Your task to perform on an android device: make emails show in primary in the gmail app Image 0: 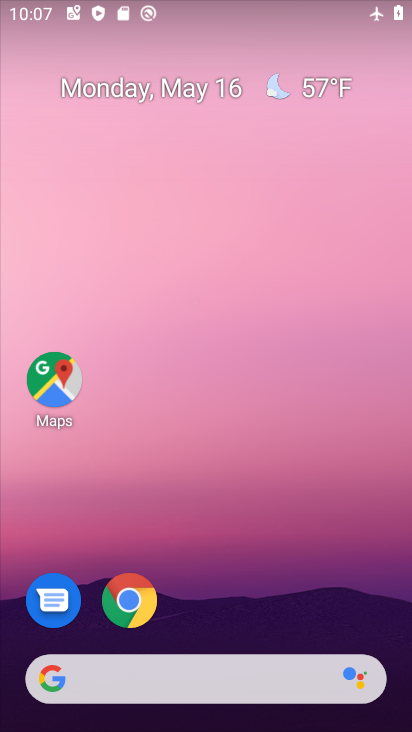
Step 0: drag from (325, 612) to (300, 154)
Your task to perform on an android device: make emails show in primary in the gmail app Image 1: 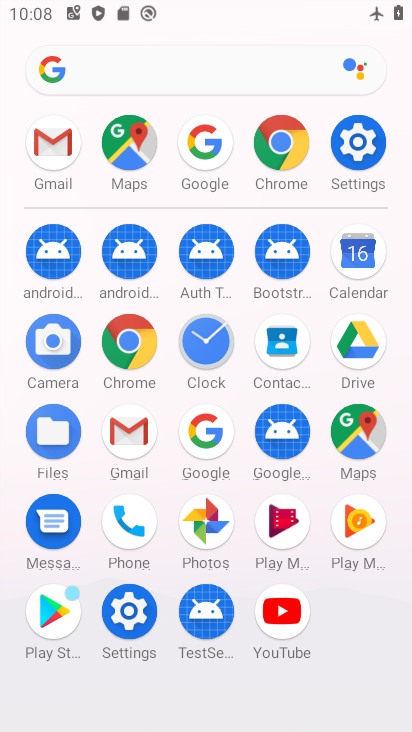
Step 1: click (134, 443)
Your task to perform on an android device: make emails show in primary in the gmail app Image 2: 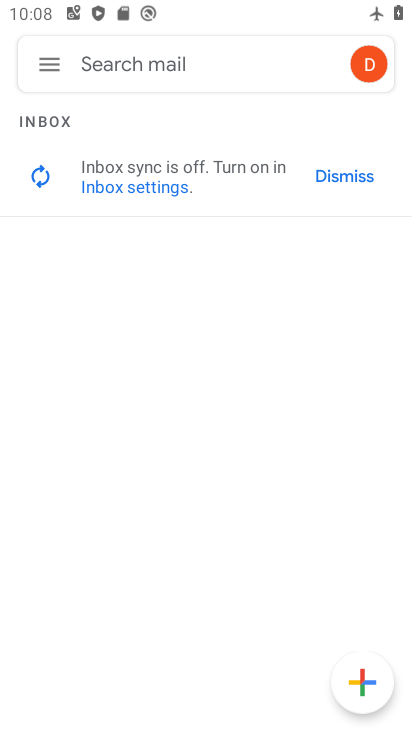
Step 2: click (56, 62)
Your task to perform on an android device: make emails show in primary in the gmail app Image 3: 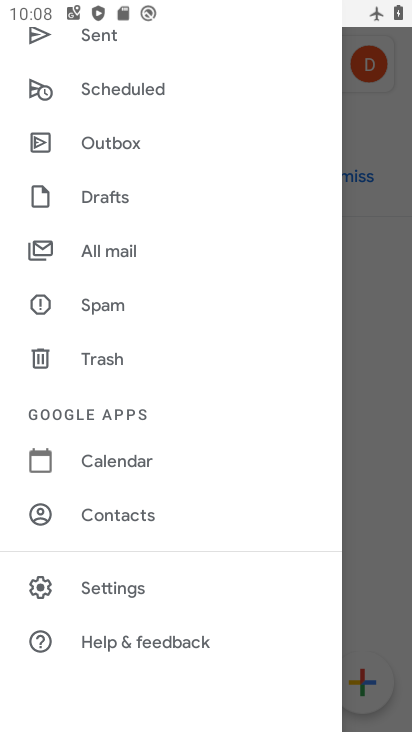
Step 3: drag from (248, 153) to (306, 695)
Your task to perform on an android device: make emails show in primary in the gmail app Image 4: 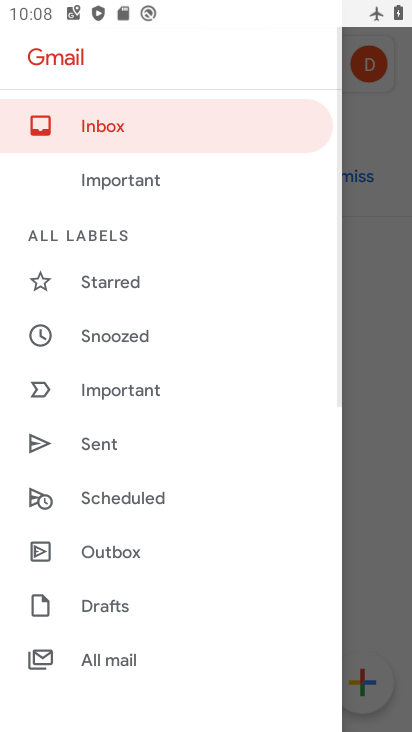
Step 4: drag from (249, 173) to (267, 521)
Your task to perform on an android device: make emails show in primary in the gmail app Image 5: 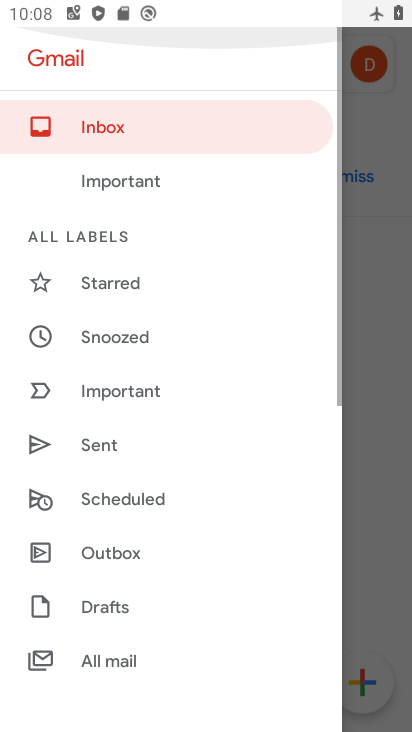
Step 5: drag from (211, 670) to (217, 188)
Your task to perform on an android device: make emails show in primary in the gmail app Image 6: 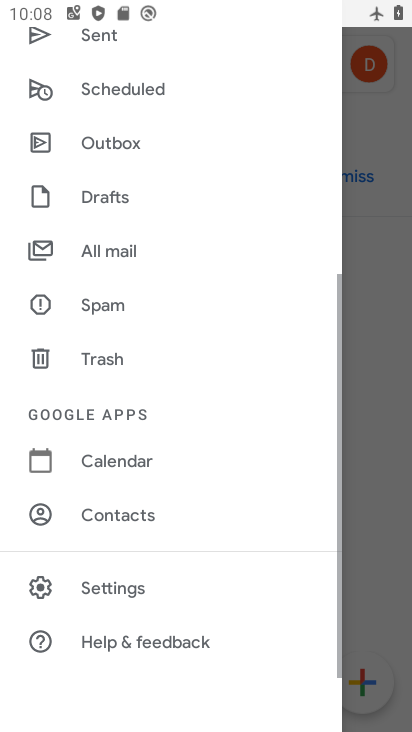
Step 6: click (161, 583)
Your task to perform on an android device: make emails show in primary in the gmail app Image 7: 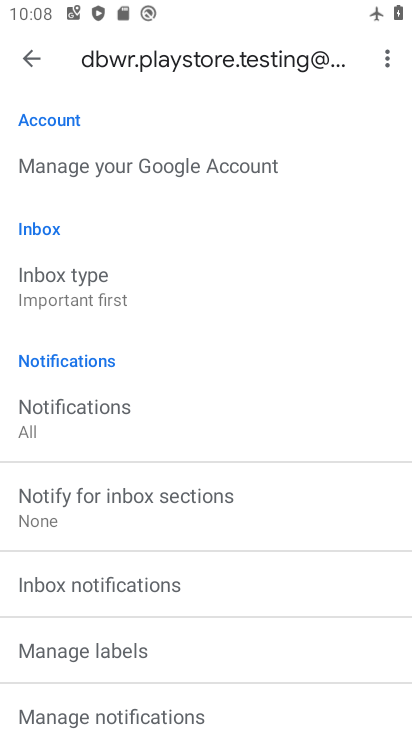
Step 7: click (99, 299)
Your task to perform on an android device: make emails show in primary in the gmail app Image 8: 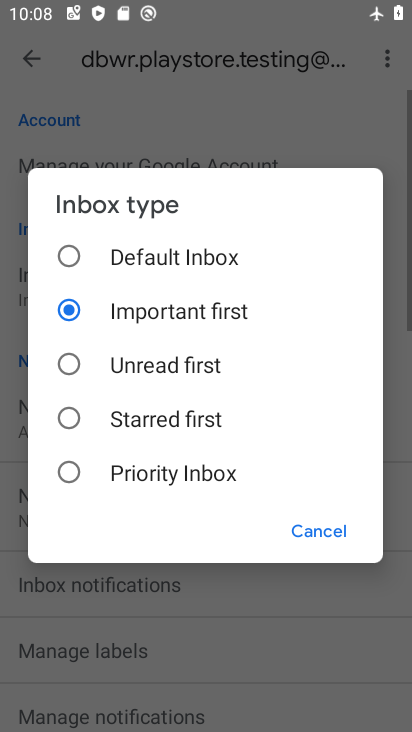
Step 8: click (122, 261)
Your task to perform on an android device: make emails show in primary in the gmail app Image 9: 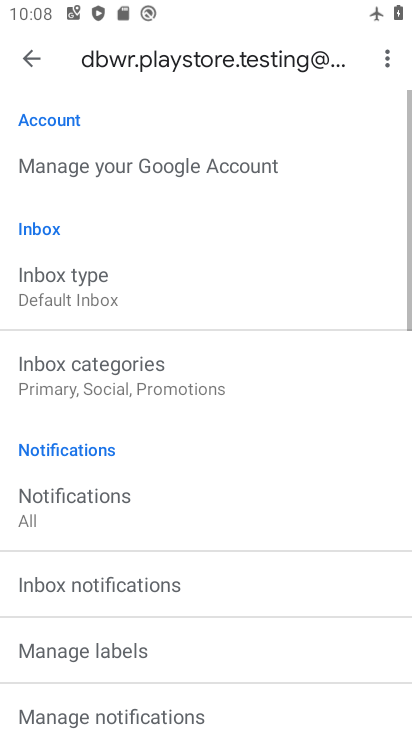
Step 9: click (41, 61)
Your task to perform on an android device: make emails show in primary in the gmail app Image 10: 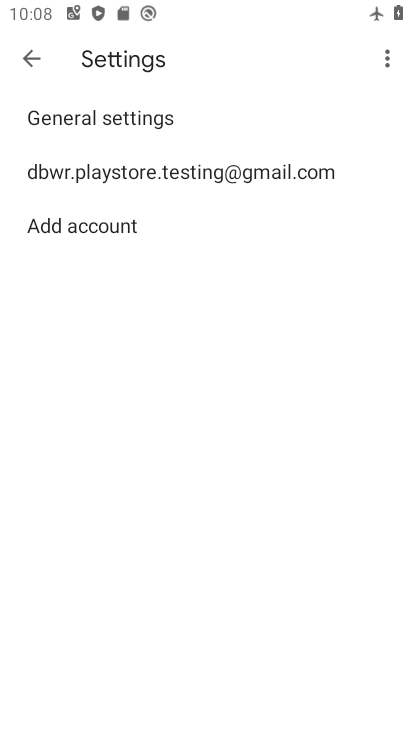
Step 10: click (42, 62)
Your task to perform on an android device: make emails show in primary in the gmail app Image 11: 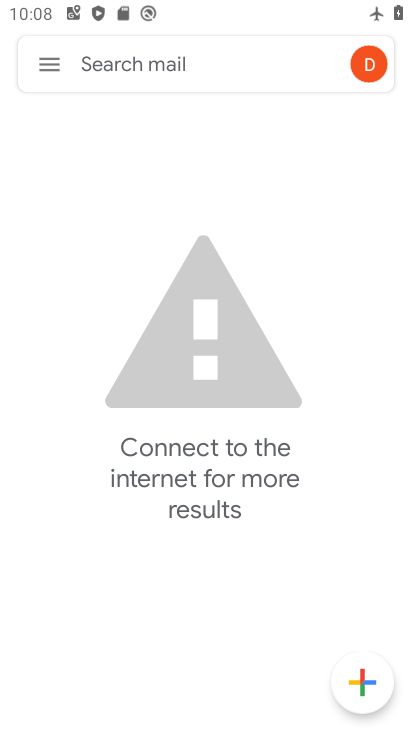
Step 11: click (44, 64)
Your task to perform on an android device: make emails show in primary in the gmail app Image 12: 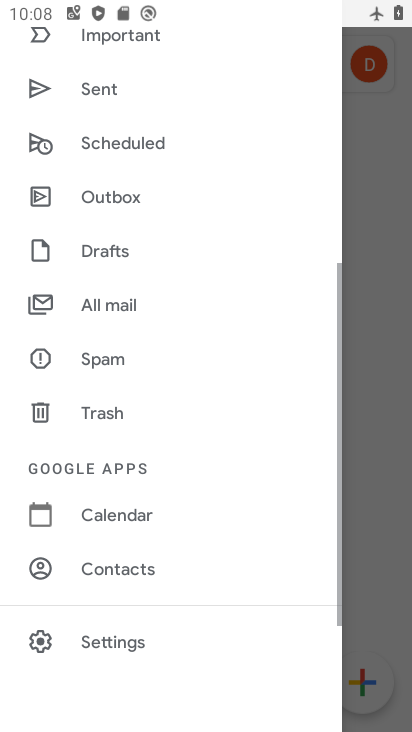
Step 12: drag from (118, 93) to (204, 650)
Your task to perform on an android device: make emails show in primary in the gmail app Image 13: 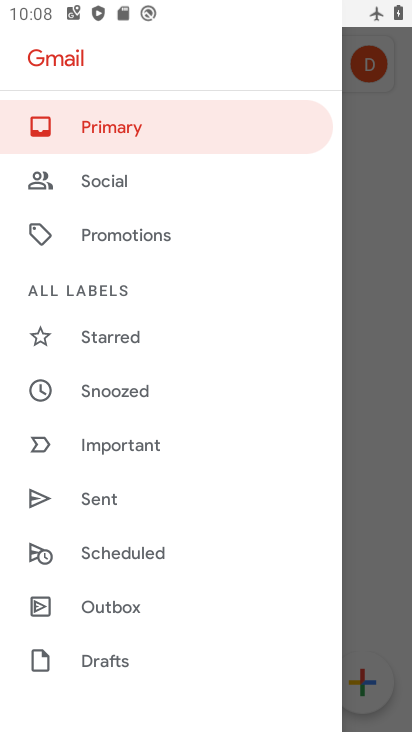
Step 13: click (246, 121)
Your task to perform on an android device: make emails show in primary in the gmail app Image 14: 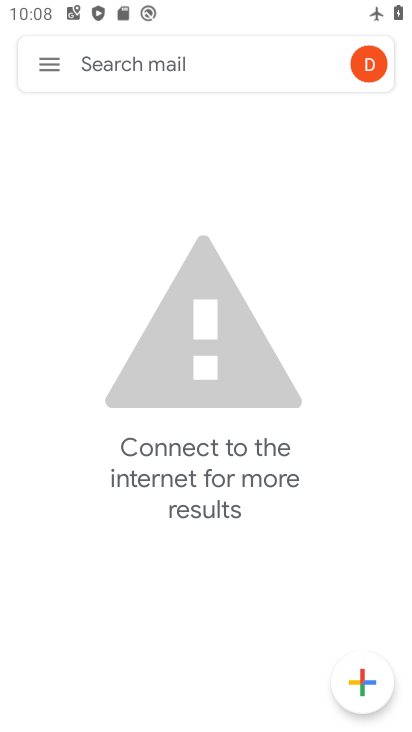
Step 14: task complete